Your task to perform on an android device: open app "Flipkart Online Shopping App" Image 0: 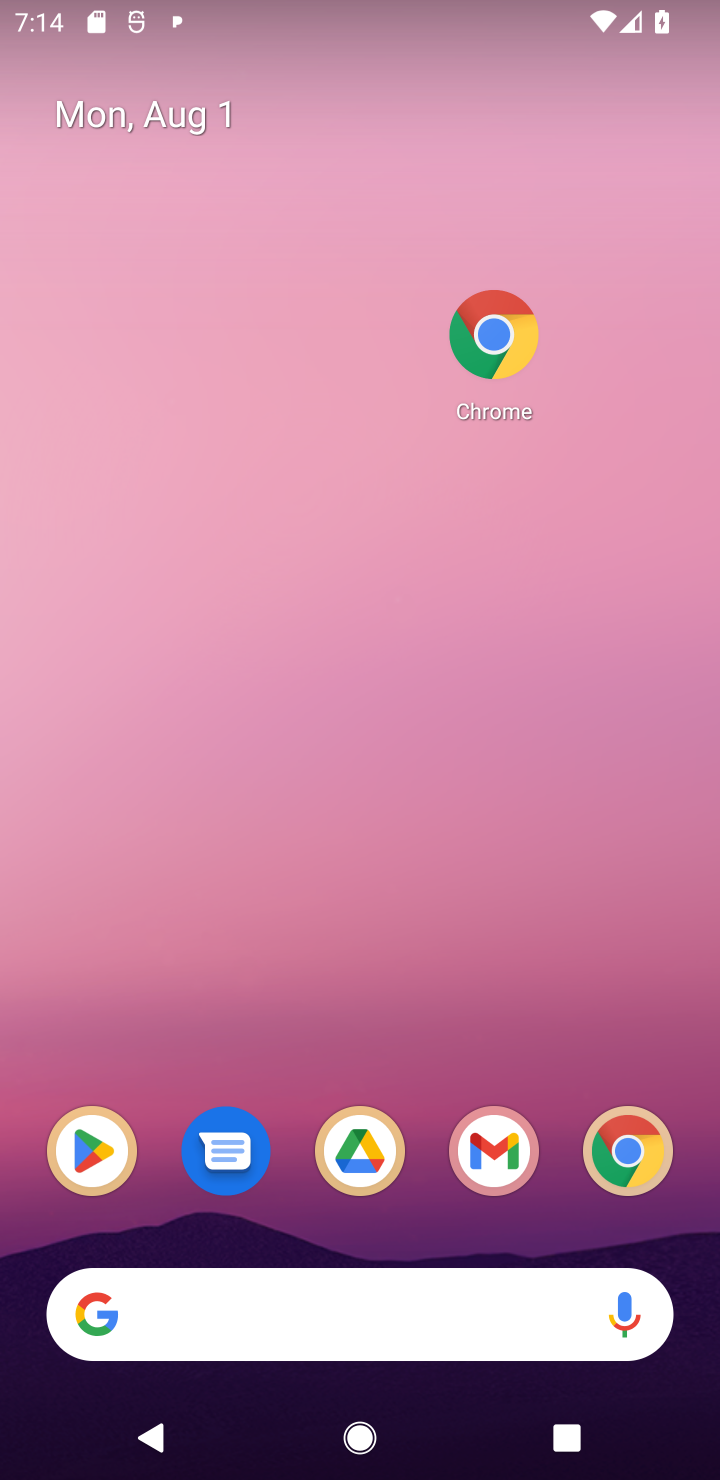
Step 0: click (124, 1155)
Your task to perform on an android device: open app "Flipkart Online Shopping App" Image 1: 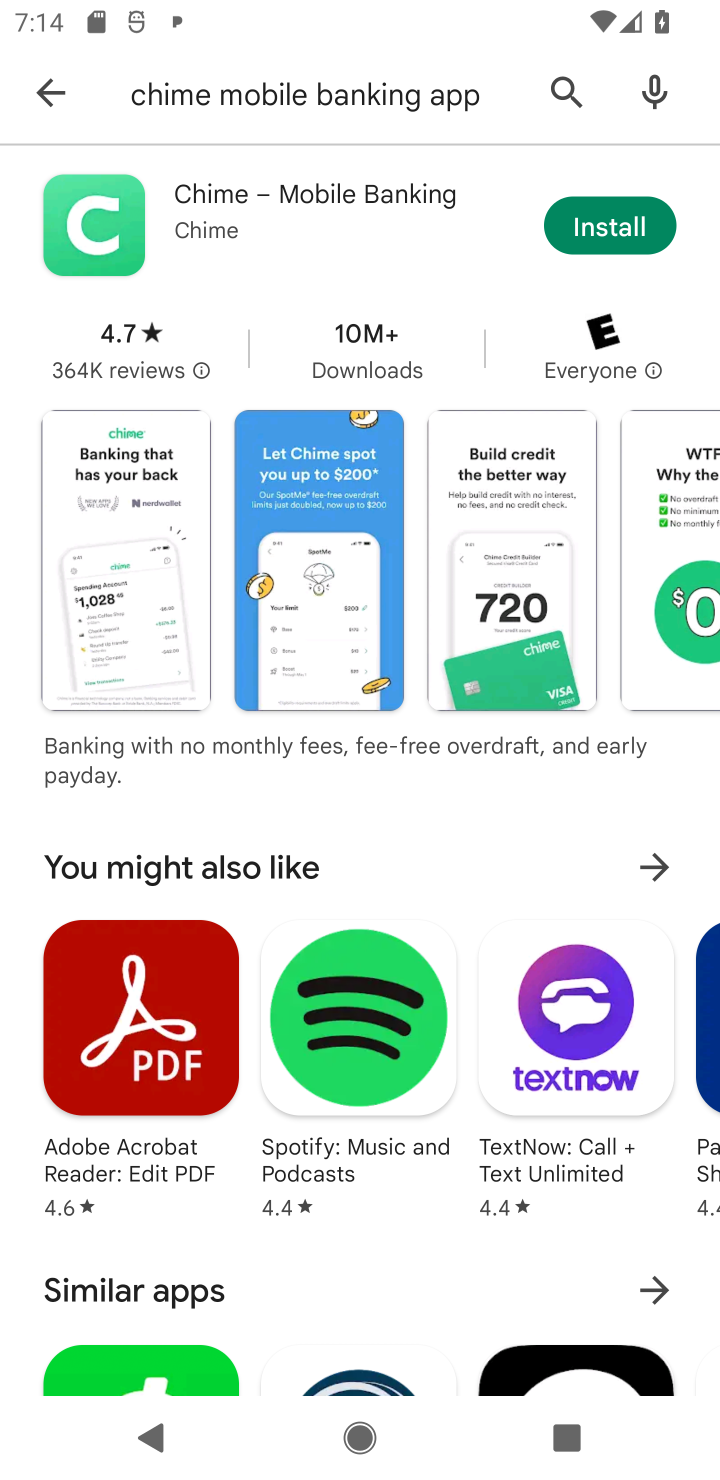
Step 1: click (486, 104)
Your task to perform on an android device: open app "Flipkart Online Shopping App" Image 2: 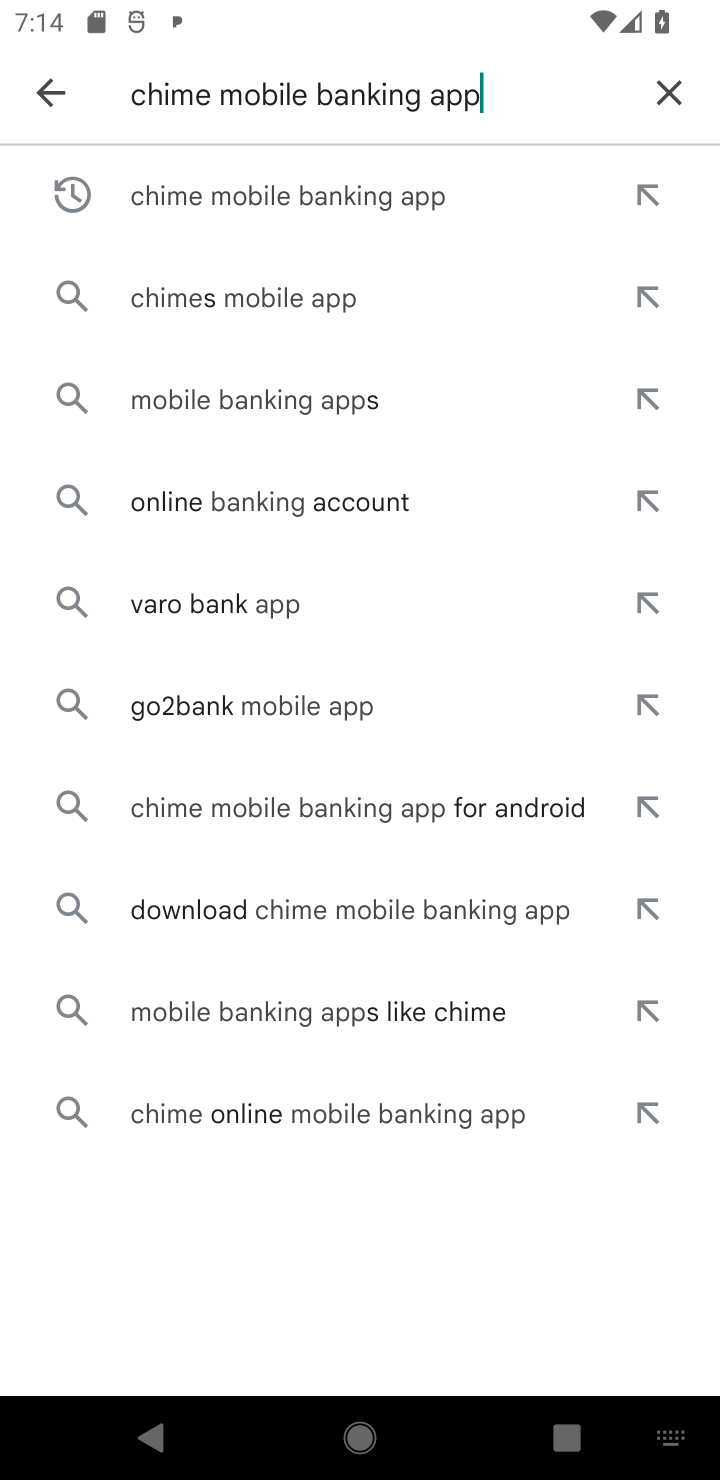
Step 2: click (663, 87)
Your task to perform on an android device: open app "Flipkart Online Shopping App" Image 3: 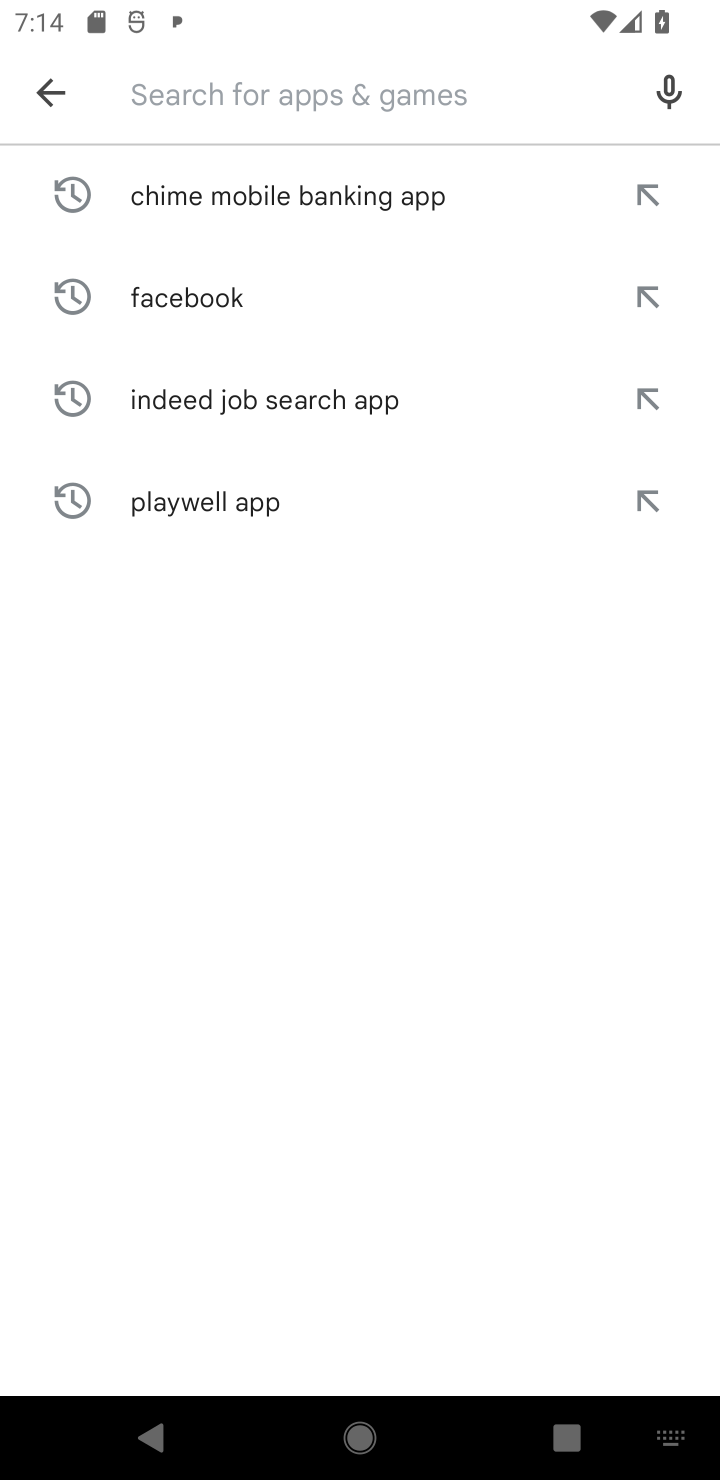
Step 3: type "Flipkart Online Shopping App"
Your task to perform on an android device: open app "Flipkart Online Shopping App" Image 4: 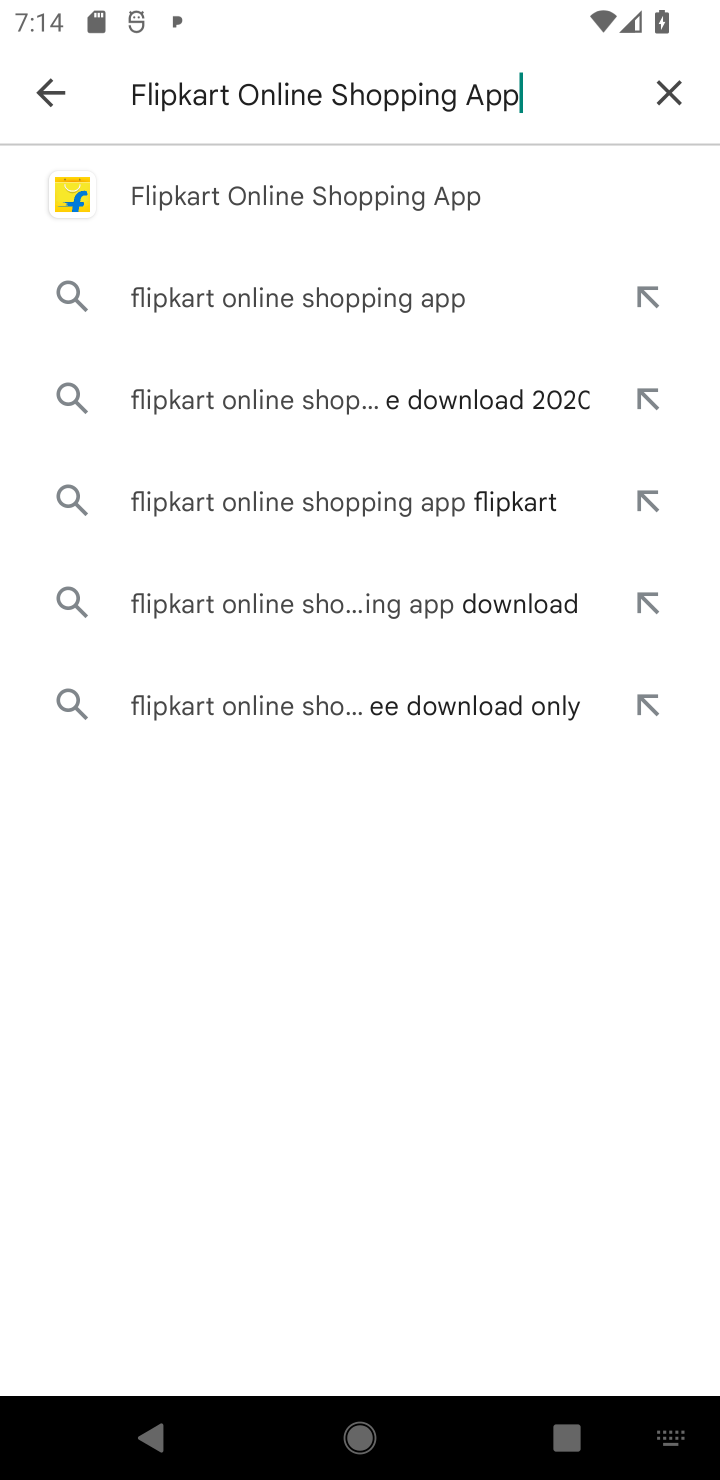
Step 4: click (371, 205)
Your task to perform on an android device: open app "Flipkart Online Shopping App" Image 5: 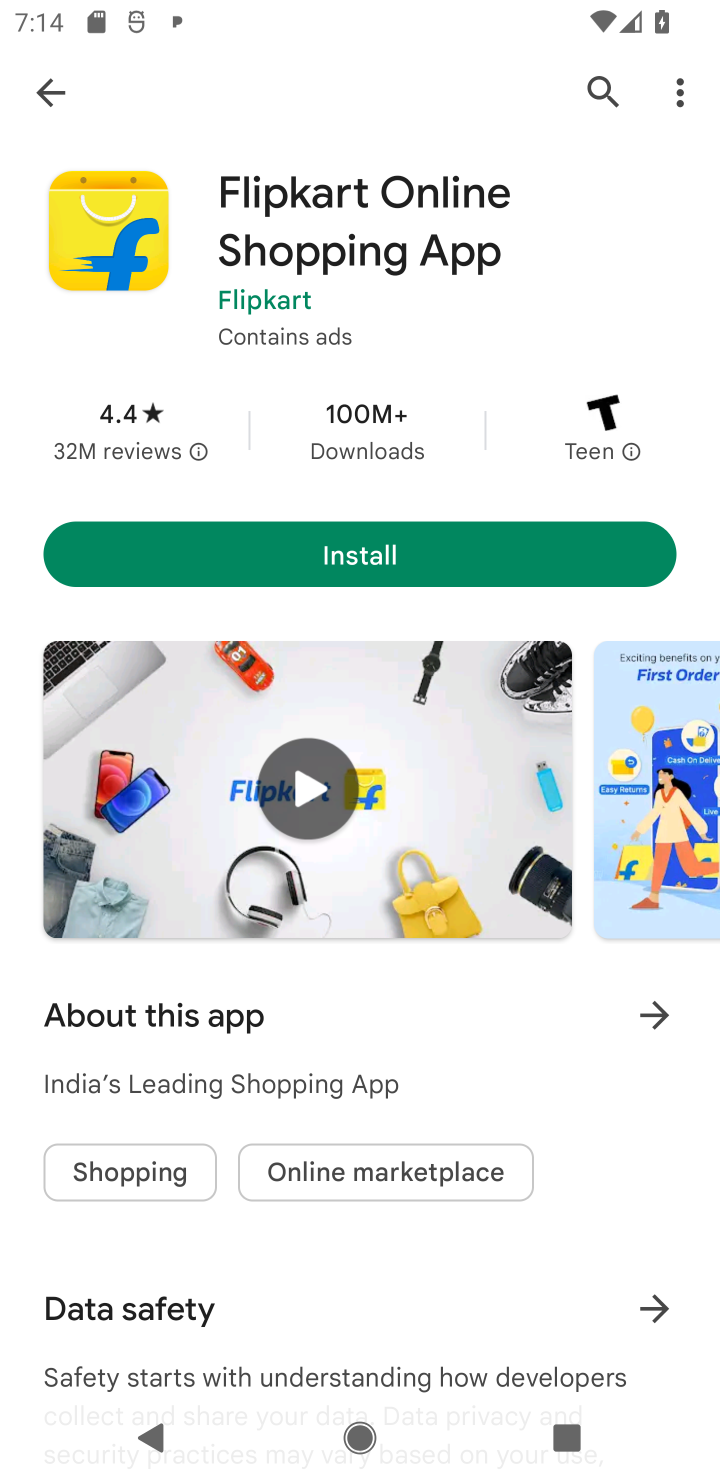
Step 5: task complete